Your task to perform on an android device: Open network settings Image 0: 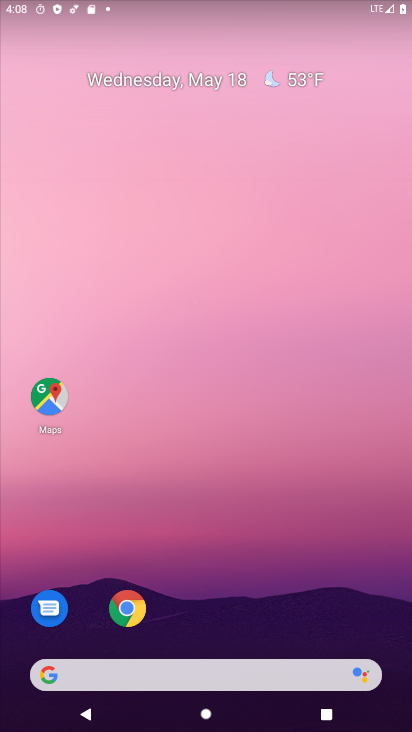
Step 0: drag from (280, 685) to (344, 203)
Your task to perform on an android device: Open network settings Image 1: 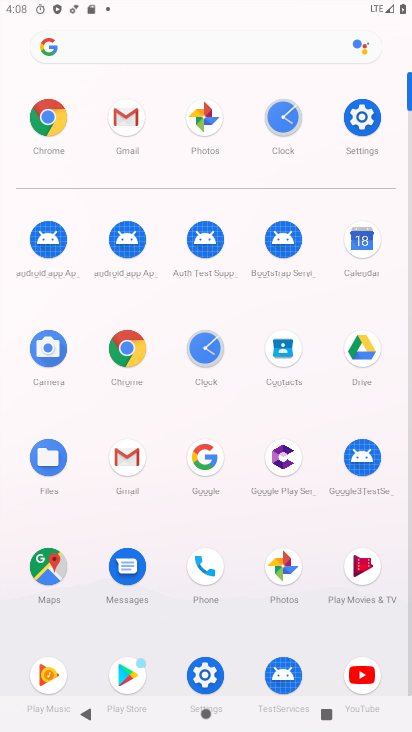
Step 1: click (363, 137)
Your task to perform on an android device: Open network settings Image 2: 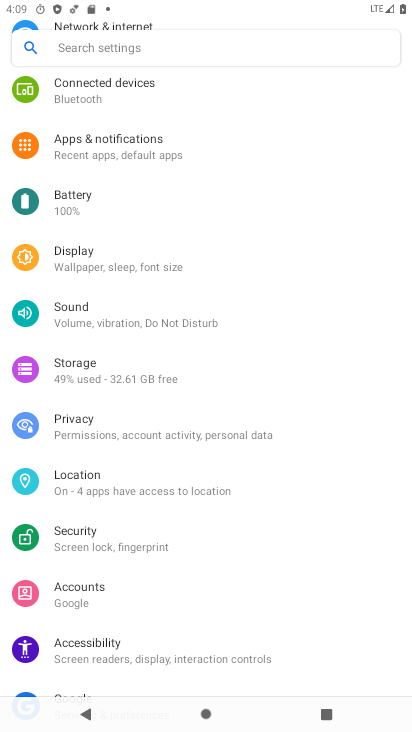
Step 2: drag from (147, 147) to (145, 556)
Your task to perform on an android device: Open network settings Image 3: 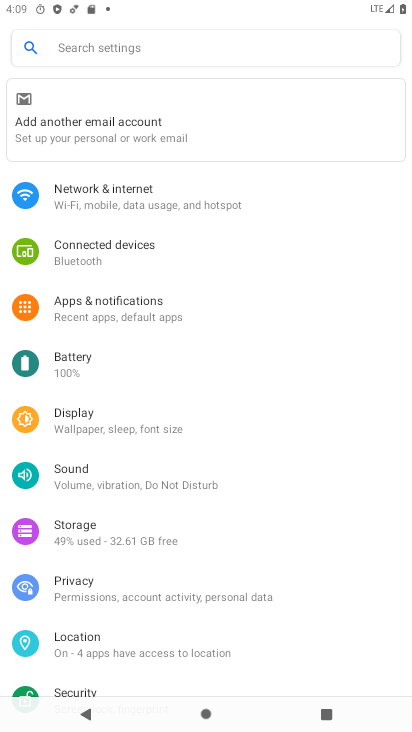
Step 3: click (69, 210)
Your task to perform on an android device: Open network settings Image 4: 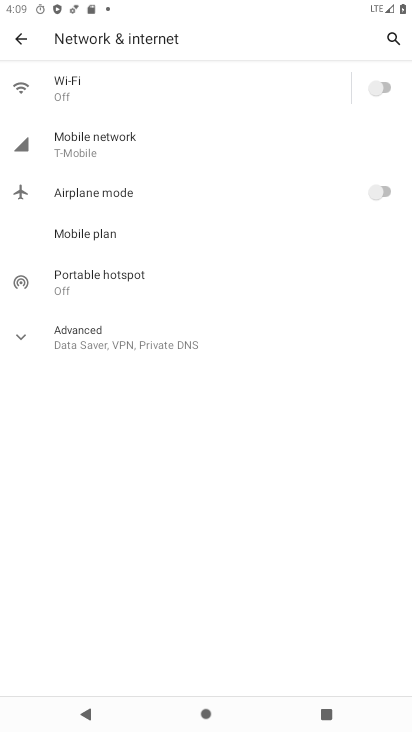
Step 4: click (122, 146)
Your task to perform on an android device: Open network settings Image 5: 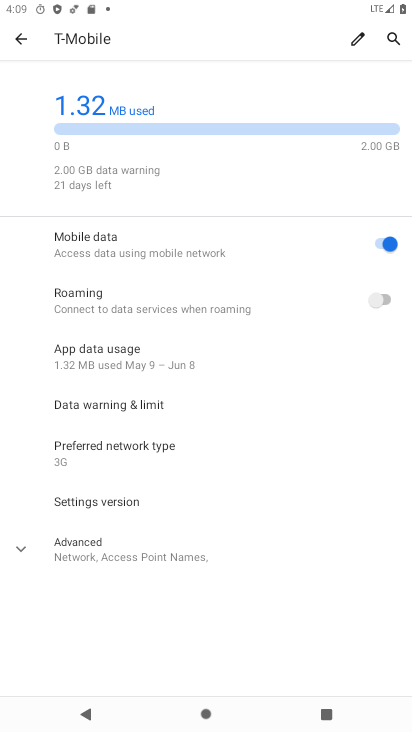
Step 5: task complete